Your task to perform on an android device: Open network settings Image 0: 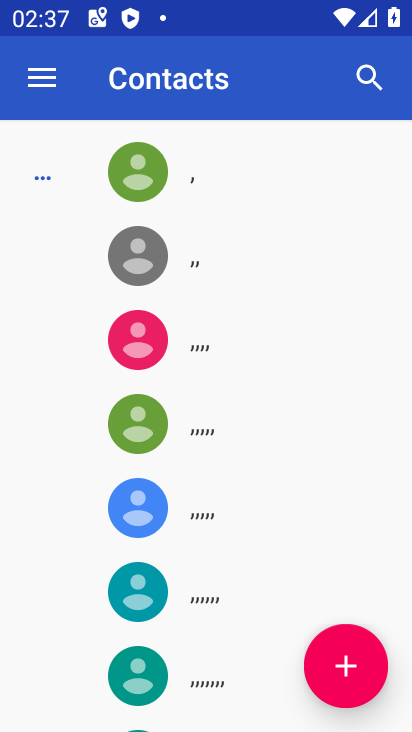
Step 0: press home button
Your task to perform on an android device: Open network settings Image 1: 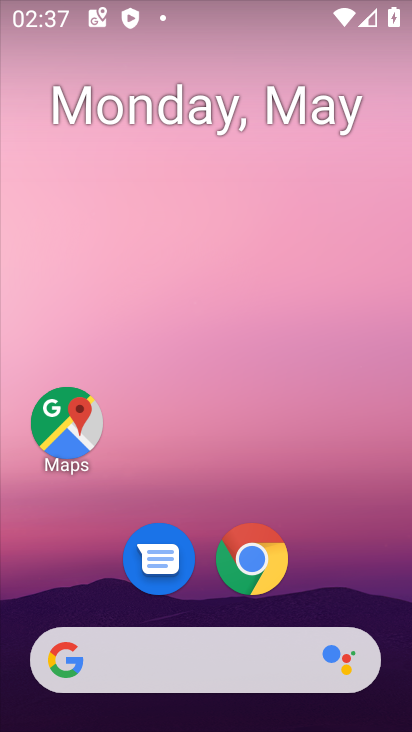
Step 1: drag from (262, 713) to (312, 113)
Your task to perform on an android device: Open network settings Image 2: 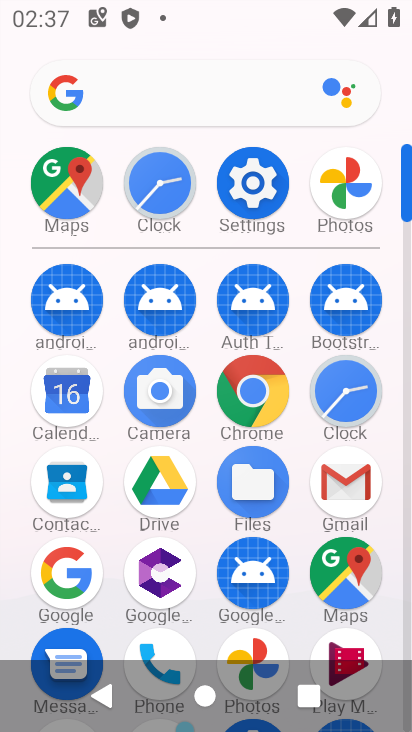
Step 2: click (257, 182)
Your task to perform on an android device: Open network settings Image 3: 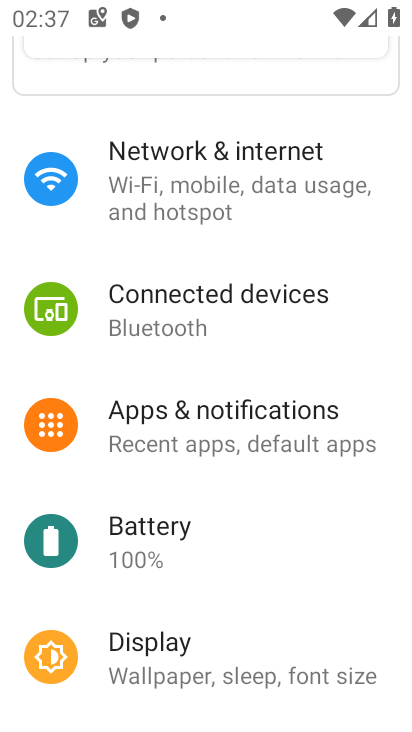
Step 3: click (276, 167)
Your task to perform on an android device: Open network settings Image 4: 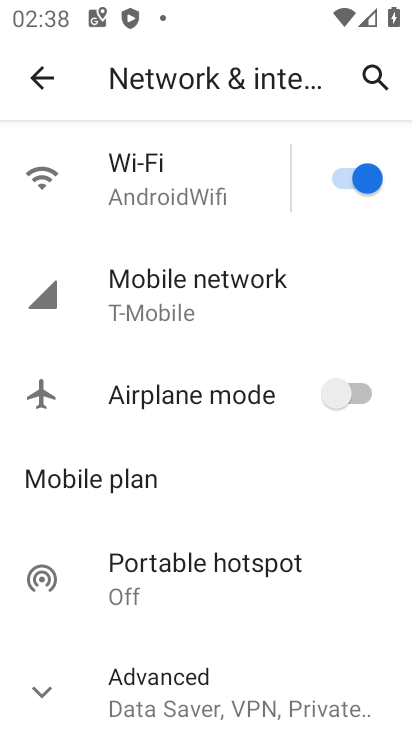
Step 4: task complete